Your task to perform on an android device: turn off improve location accuracy Image 0: 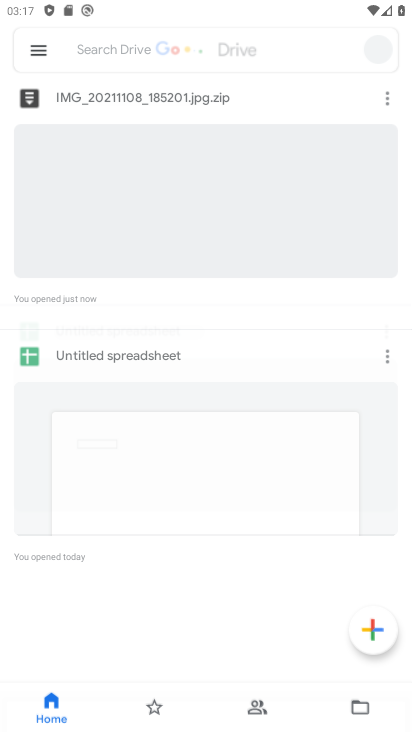
Step 0: press home button
Your task to perform on an android device: turn off improve location accuracy Image 1: 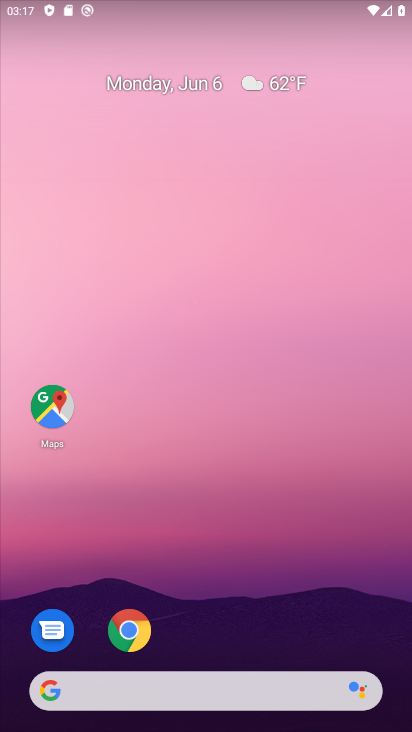
Step 1: drag from (222, 600) to (222, 52)
Your task to perform on an android device: turn off improve location accuracy Image 2: 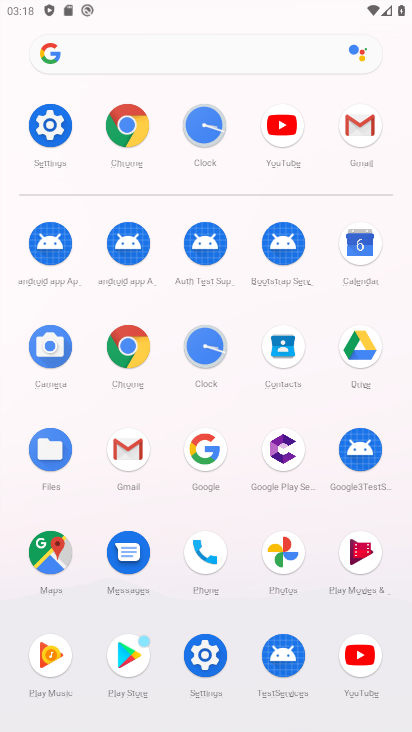
Step 2: click (191, 643)
Your task to perform on an android device: turn off improve location accuracy Image 3: 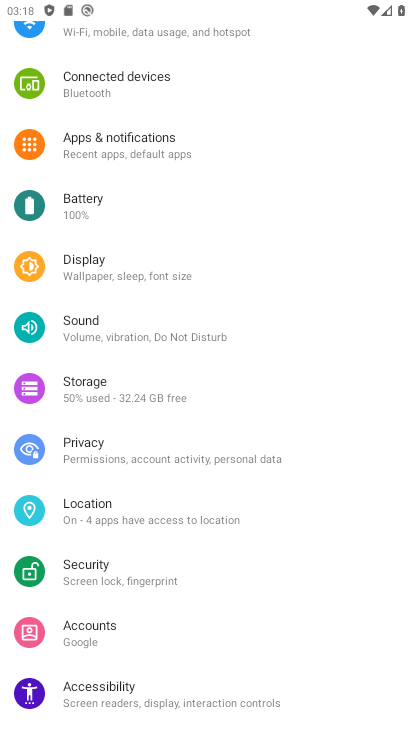
Step 3: click (25, 514)
Your task to perform on an android device: turn off improve location accuracy Image 4: 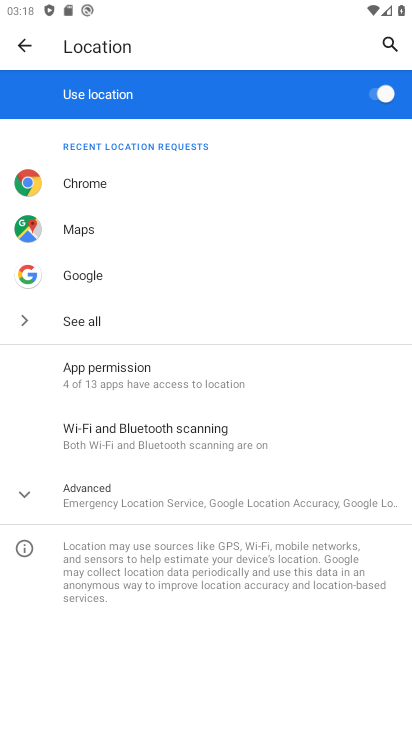
Step 4: click (113, 490)
Your task to perform on an android device: turn off improve location accuracy Image 5: 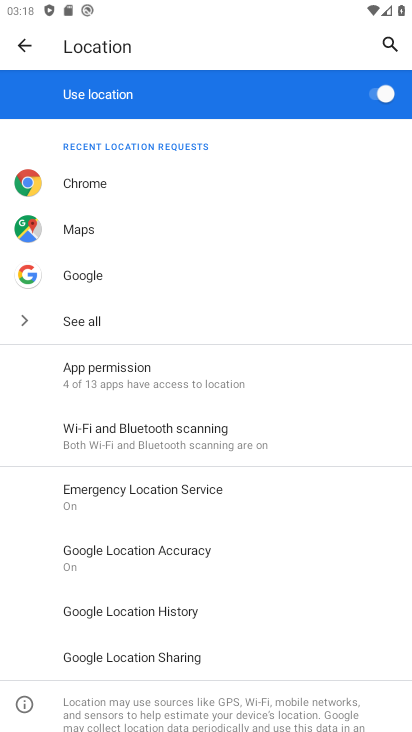
Step 5: click (122, 556)
Your task to perform on an android device: turn off improve location accuracy Image 6: 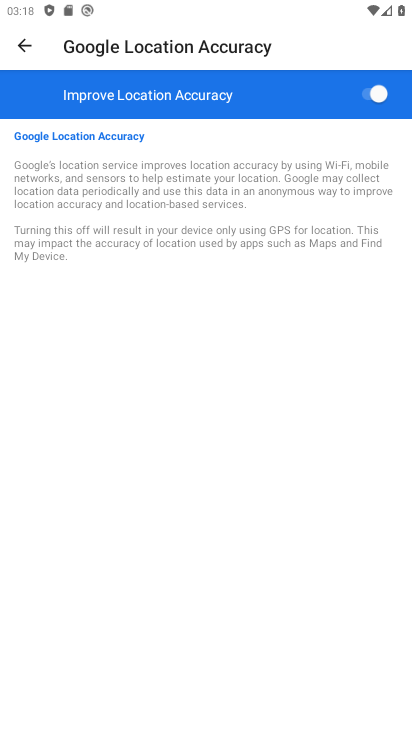
Step 6: click (292, 91)
Your task to perform on an android device: turn off improve location accuracy Image 7: 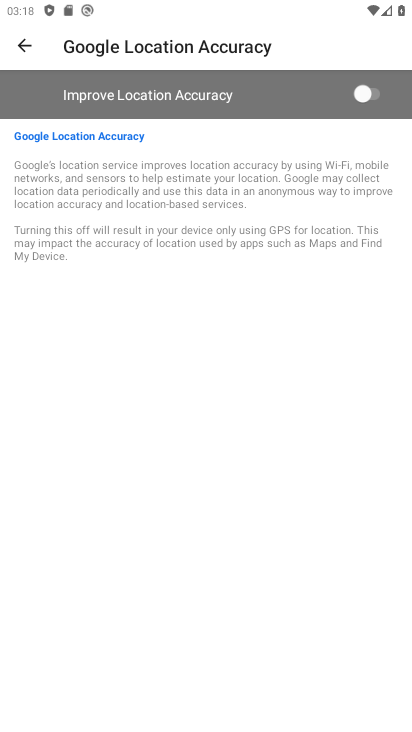
Step 7: task complete